Your task to perform on an android device: Search for a new lawnmower on Lowes. Image 0: 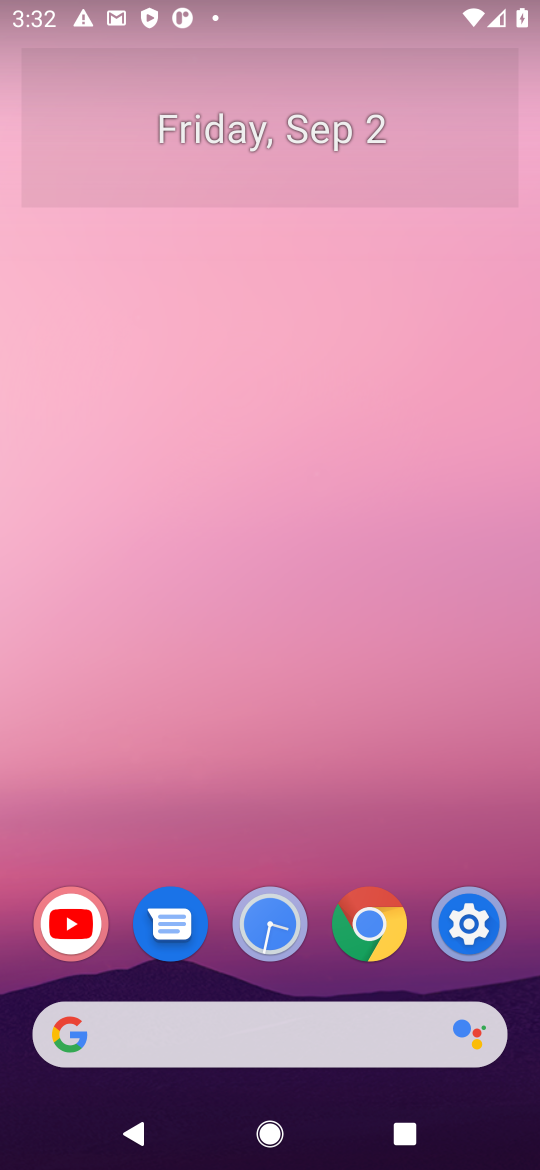
Step 0: press home button
Your task to perform on an android device: Search for a new lawnmower on Lowes. Image 1: 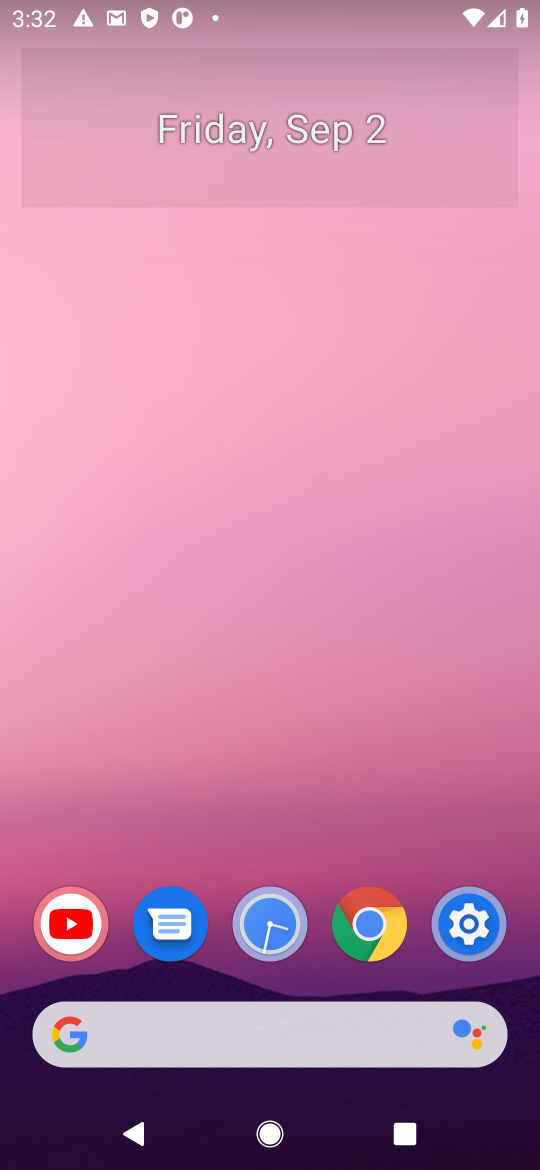
Step 1: click (377, 1031)
Your task to perform on an android device: Search for a new lawnmower on Lowes. Image 2: 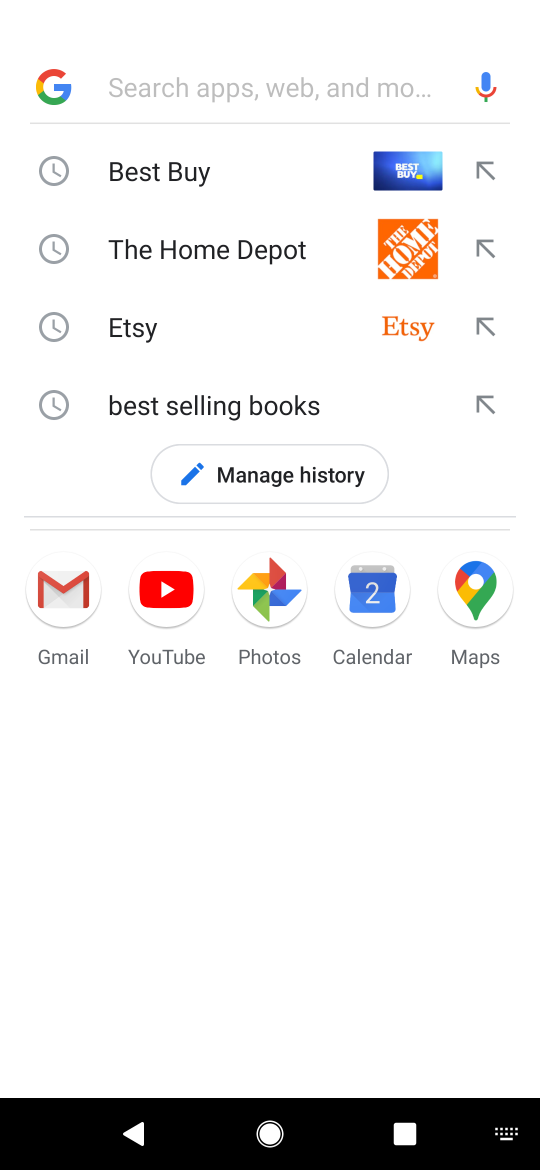
Step 2: press enter
Your task to perform on an android device: Search for a new lawnmower on Lowes. Image 3: 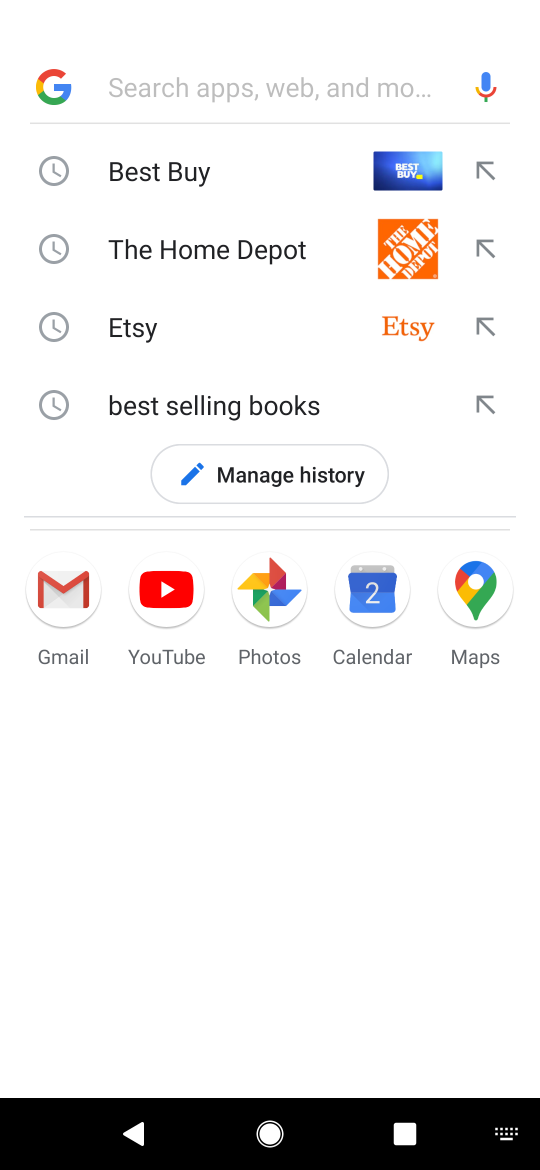
Step 3: type "lowes"
Your task to perform on an android device: Search for a new lawnmower on Lowes. Image 4: 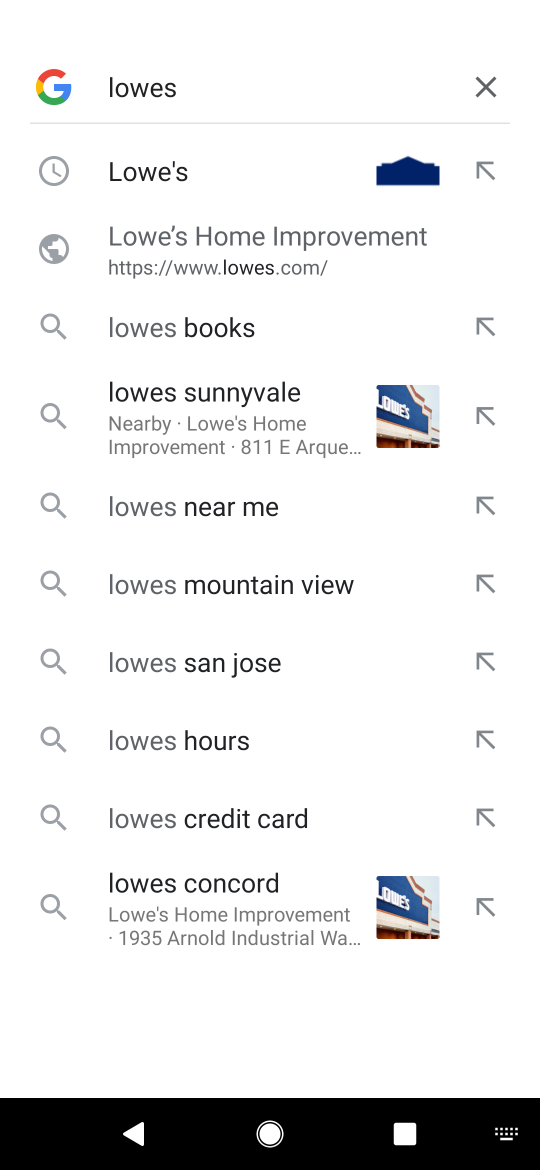
Step 4: click (195, 162)
Your task to perform on an android device: Search for a new lawnmower on Lowes. Image 5: 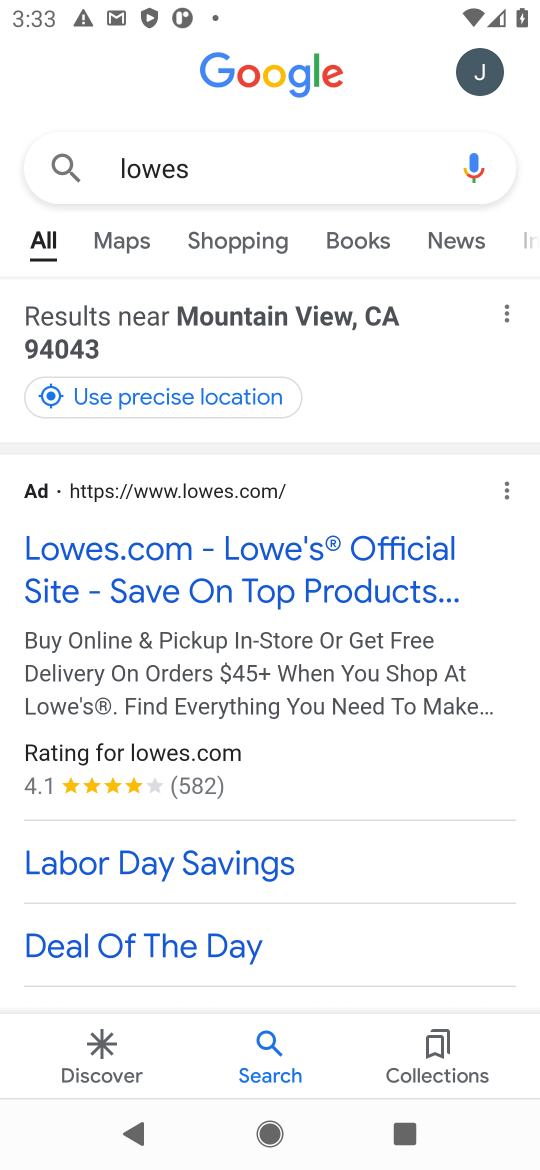
Step 5: click (258, 564)
Your task to perform on an android device: Search for a new lawnmower on Lowes. Image 6: 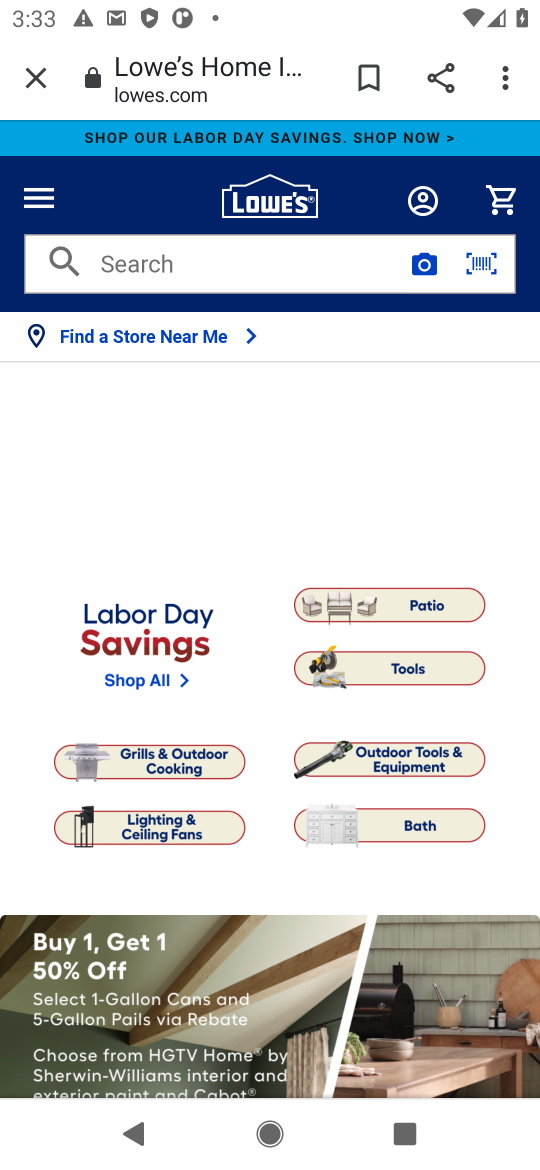
Step 6: click (248, 265)
Your task to perform on an android device: Search for a new lawnmower on Lowes. Image 7: 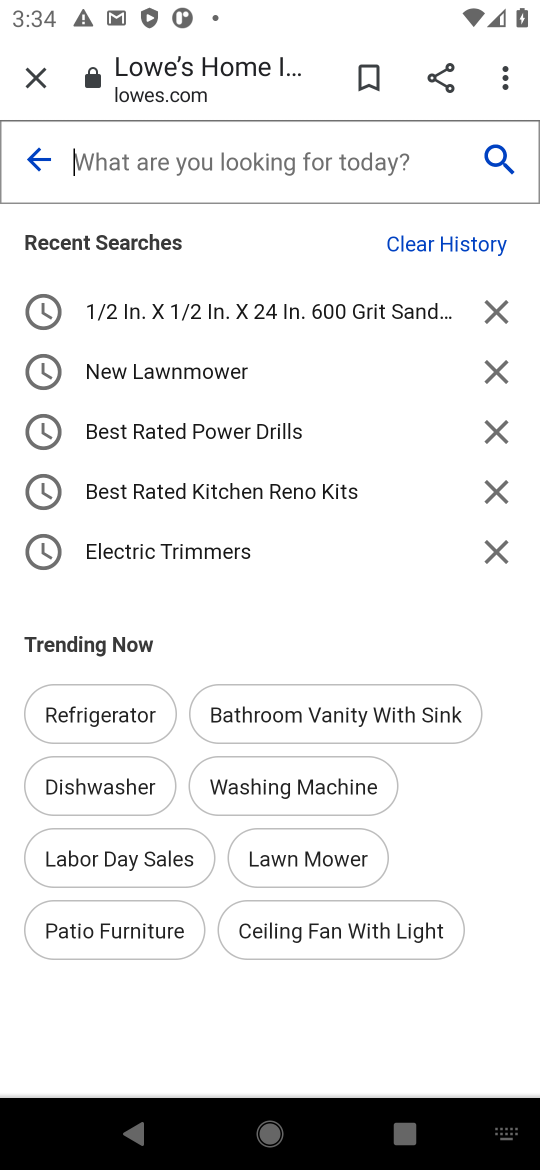
Step 7: type "lawnmower"
Your task to perform on an android device: Search for a new lawnmower on Lowes. Image 8: 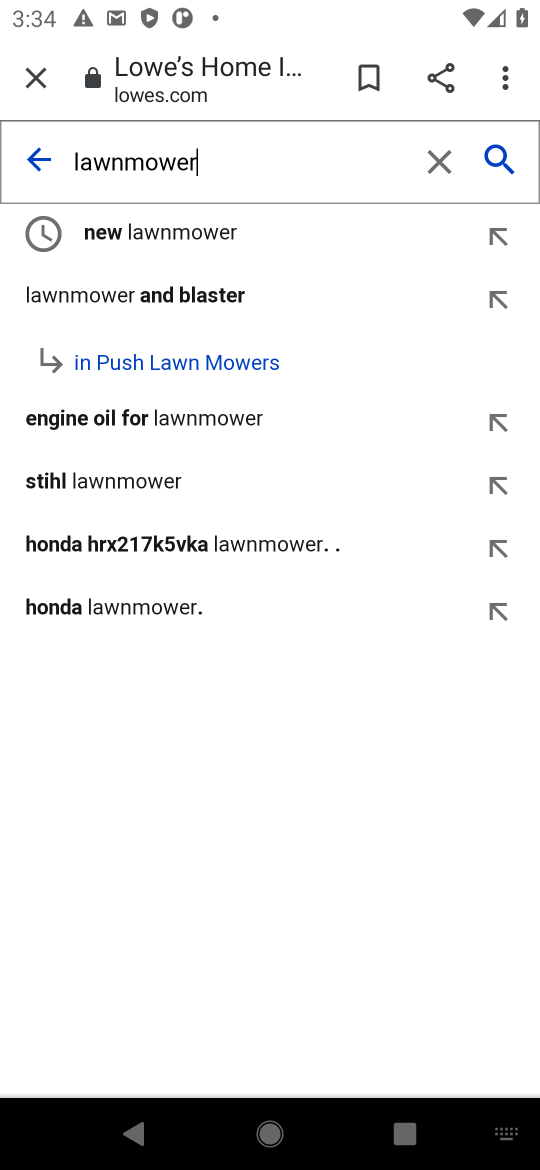
Step 8: click (498, 155)
Your task to perform on an android device: Search for a new lawnmower on Lowes. Image 9: 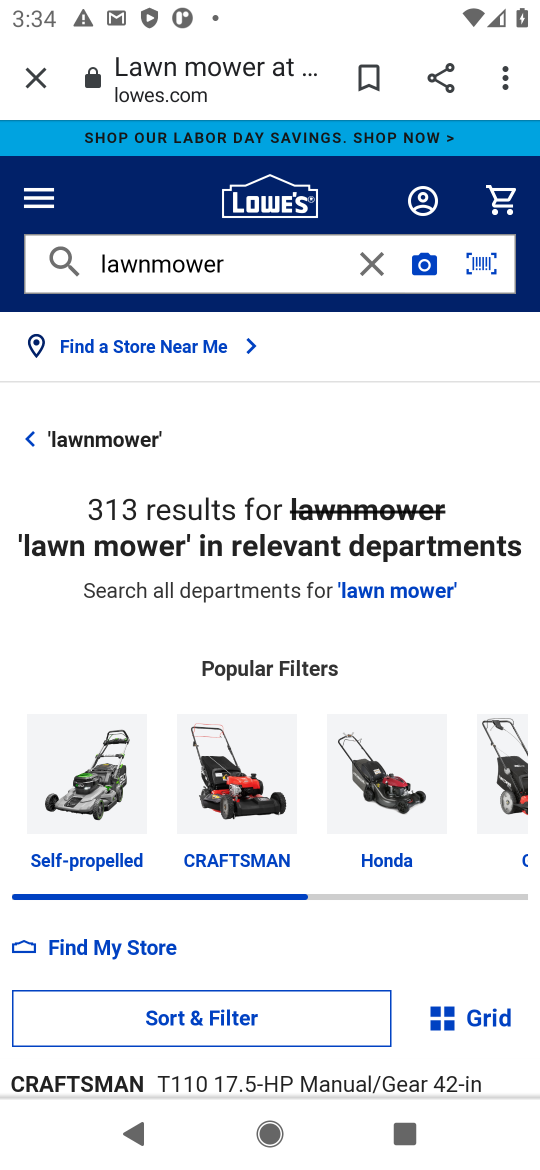
Step 9: task complete